Your task to perform on an android device: allow cookies in the chrome app Image 0: 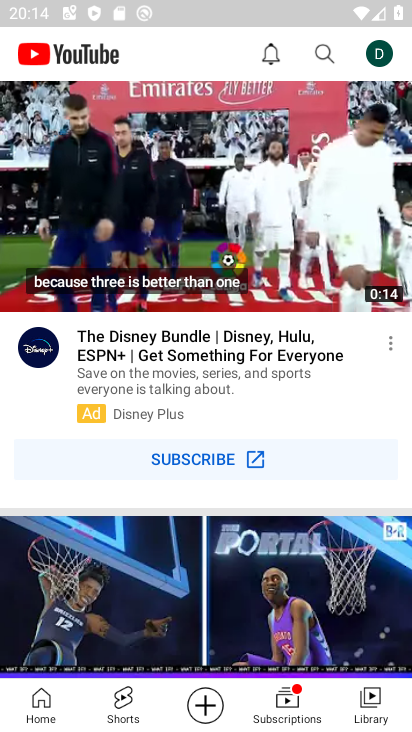
Step 0: press home button
Your task to perform on an android device: allow cookies in the chrome app Image 1: 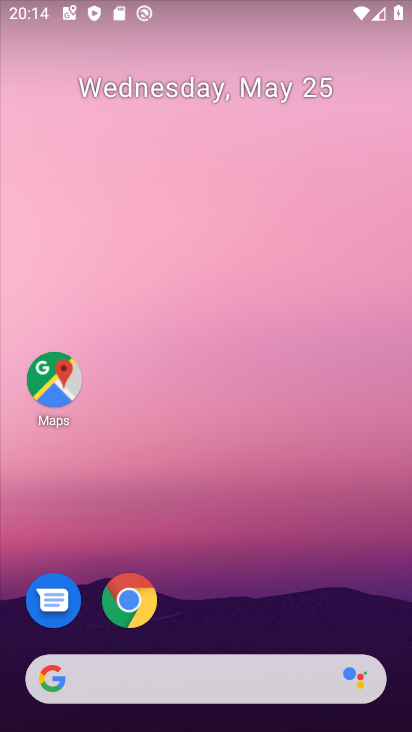
Step 1: drag from (367, 587) to (322, 343)
Your task to perform on an android device: allow cookies in the chrome app Image 2: 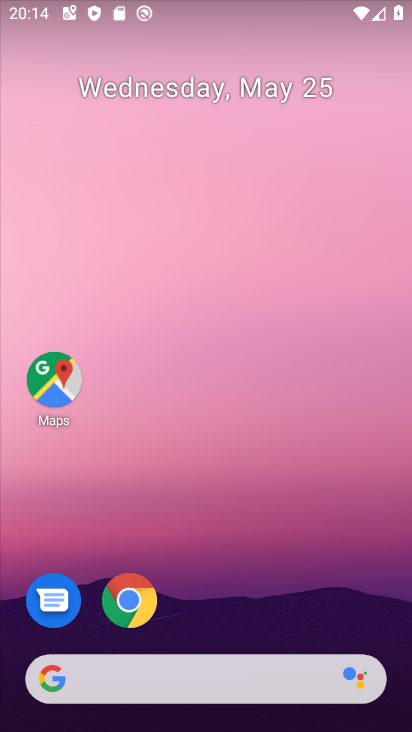
Step 2: drag from (369, 580) to (295, 241)
Your task to perform on an android device: allow cookies in the chrome app Image 3: 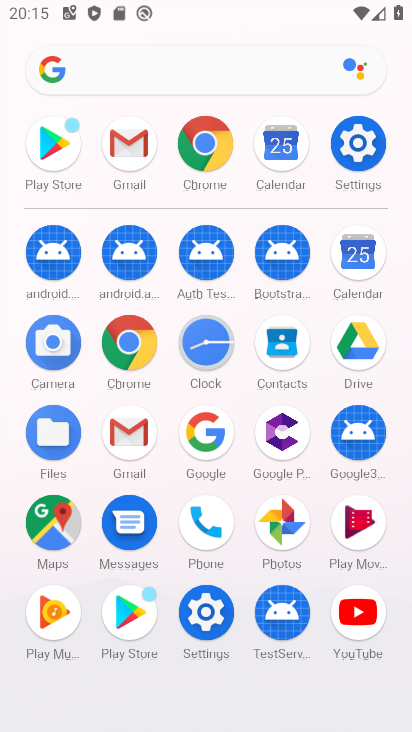
Step 3: click (144, 339)
Your task to perform on an android device: allow cookies in the chrome app Image 4: 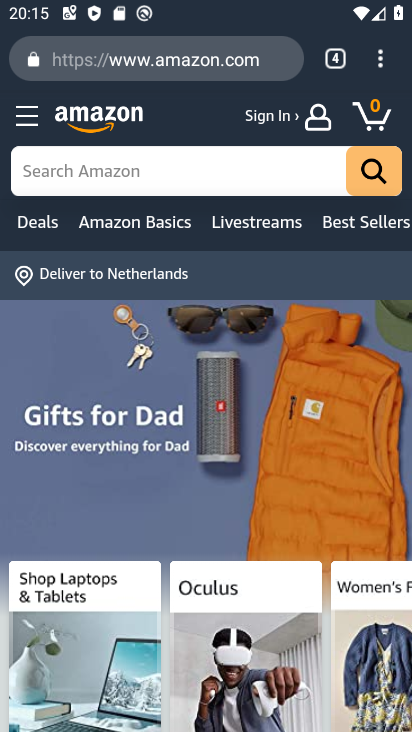
Step 4: drag from (381, 67) to (213, 631)
Your task to perform on an android device: allow cookies in the chrome app Image 5: 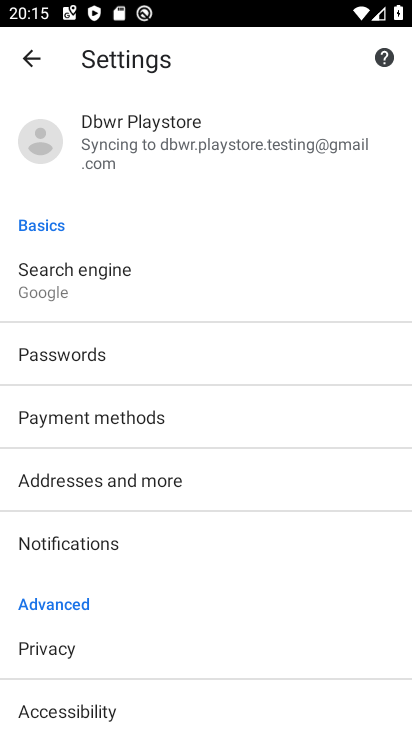
Step 5: drag from (194, 620) to (195, 346)
Your task to perform on an android device: allow cookies in the chrome app Image 6: 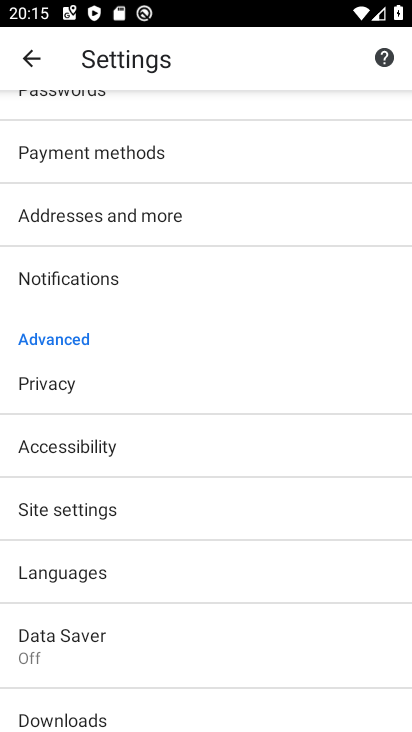
Step 6: click (150, 511)
Your task to perform on an android device: allow cookies in the chrome app Image 7: 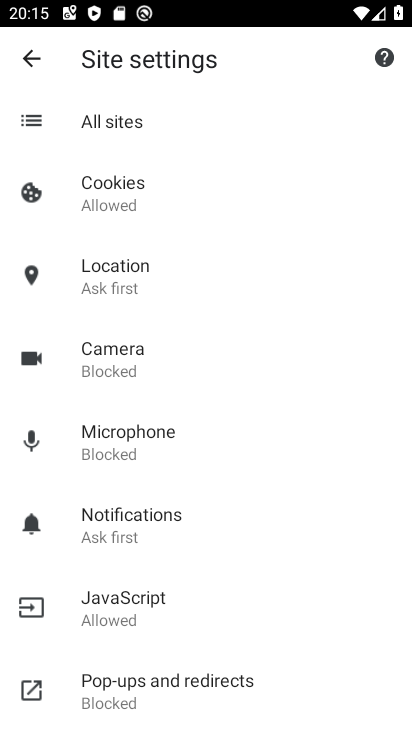
Step 7: click (161, 195)
Your task to perform on an android device: allow cookies in the chrome app Image 8: 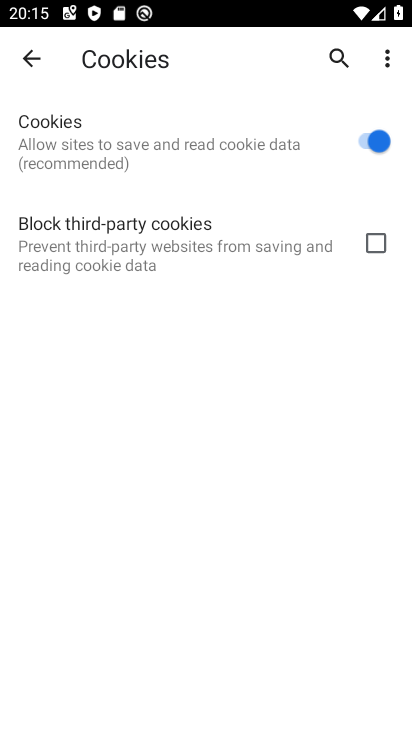
Step 8: task complete